Your task to perform on an android device: open a bookmark in the chrome app Image 0: 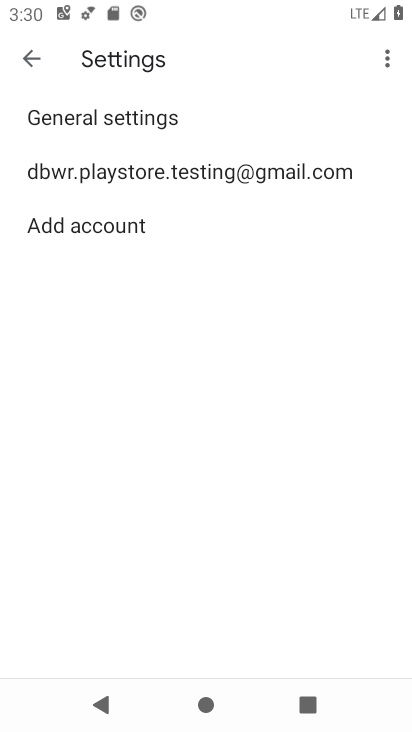
Step 0: press home button
Your task to perform on an android device: open a bookmark in the chrome app Image 1: 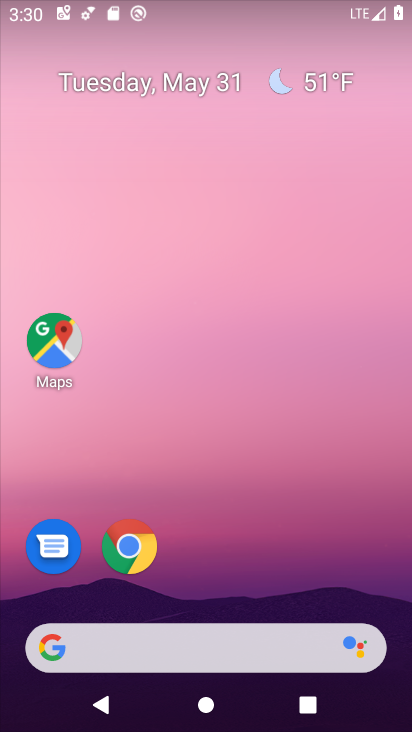
Step 1: click (150, 539)
Your task to perform on an android device: open a bookmark in the chrome app Image 2: 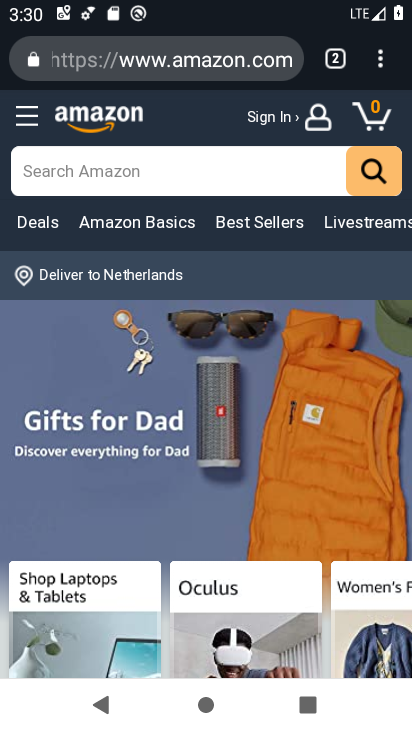
Step 2: click (378, 65)
Your task to perform on an android device: open a bookmark in the chrome app Image 3: 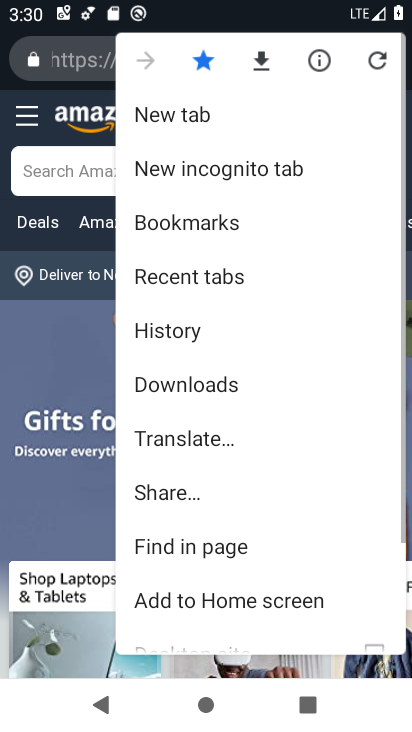
Step 3: click (228, 233)
Your task to perform on an android device: open a bookmark in the chrome app Image 4: 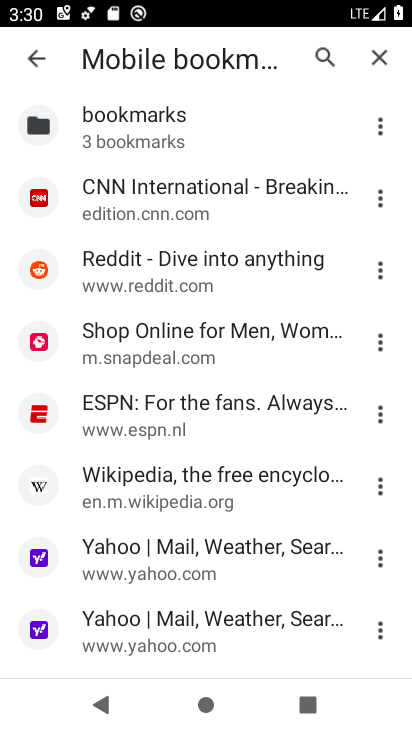
Step 4: click (168, 267)
Your task to perform on an android device: open a bookmark in the chrome app Image 5: 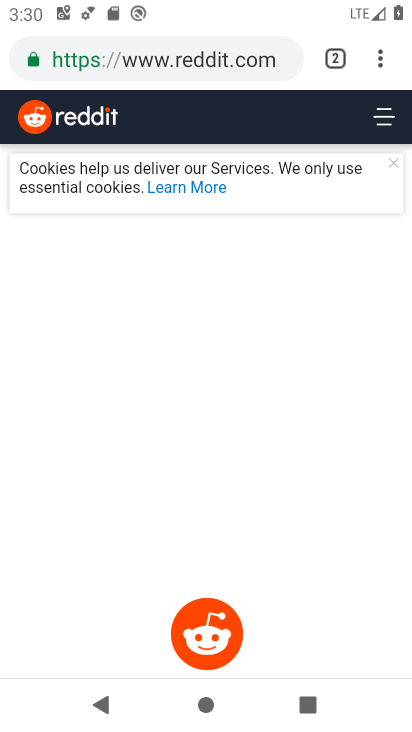
Step 5: task complete